Your task to perform on an android device: Open internet settings Image 0: 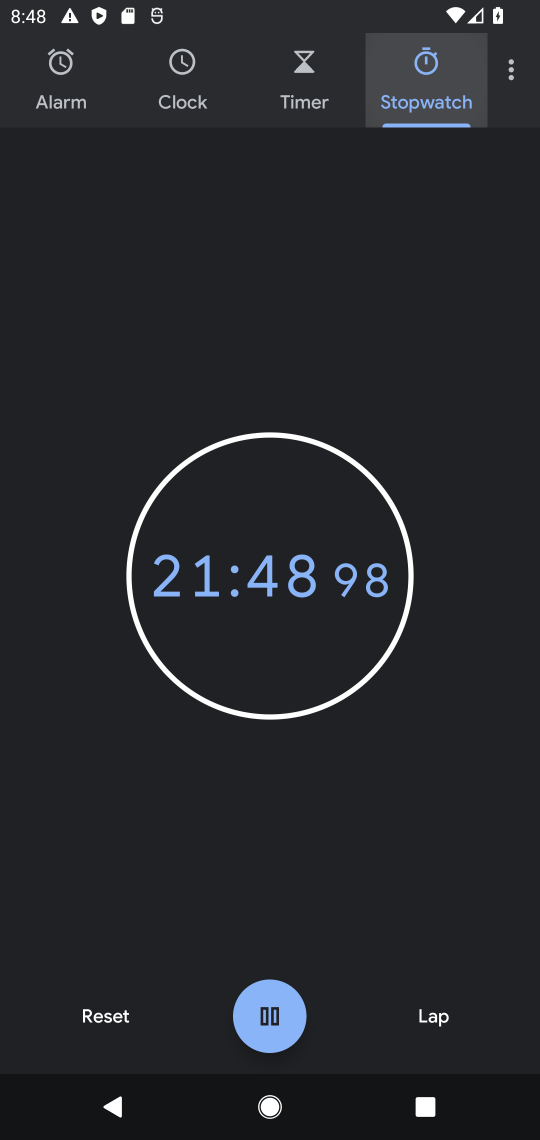
Step 0: press home button
Your task to perform on an android device: Open internet settings Image 1: 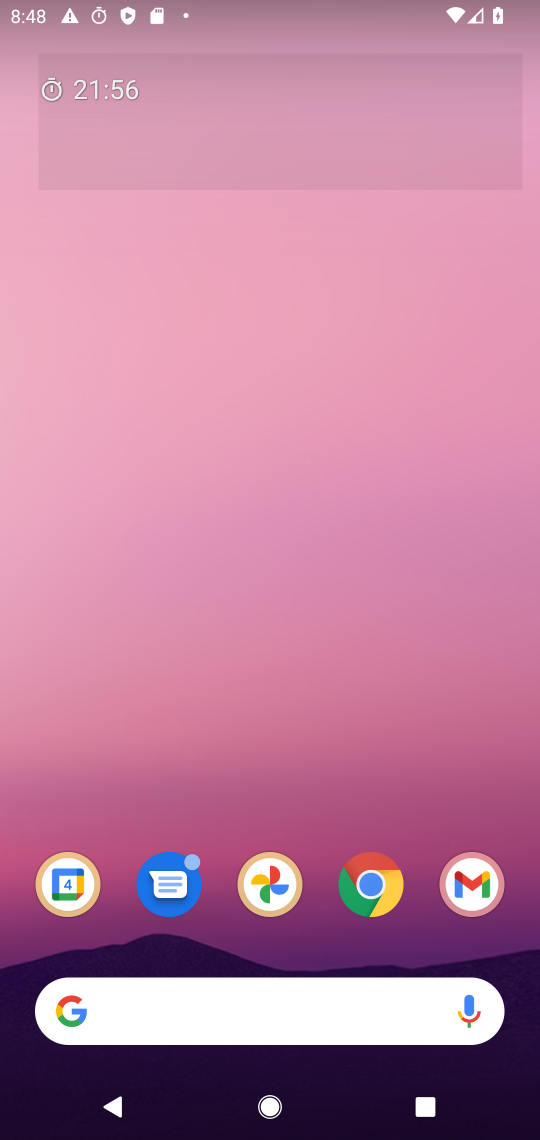
Step 1: drag from (278, 903) to (386, 217)
Your task to perform on an android device: Open internet settings Image 2: 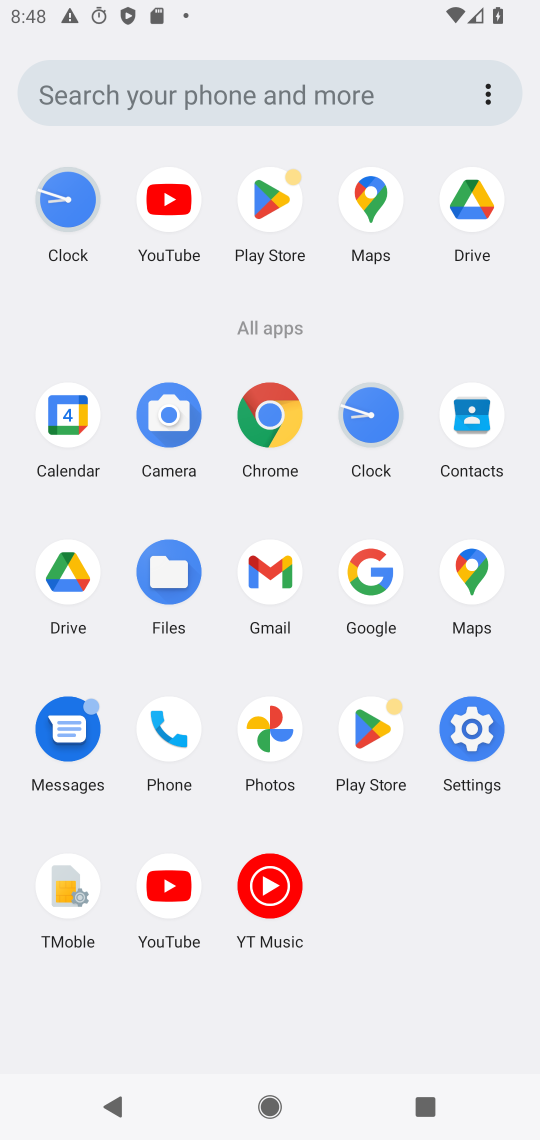
Step 2: click (480, 730)
Your task to perform on an android device: Open internet settings Image 3: 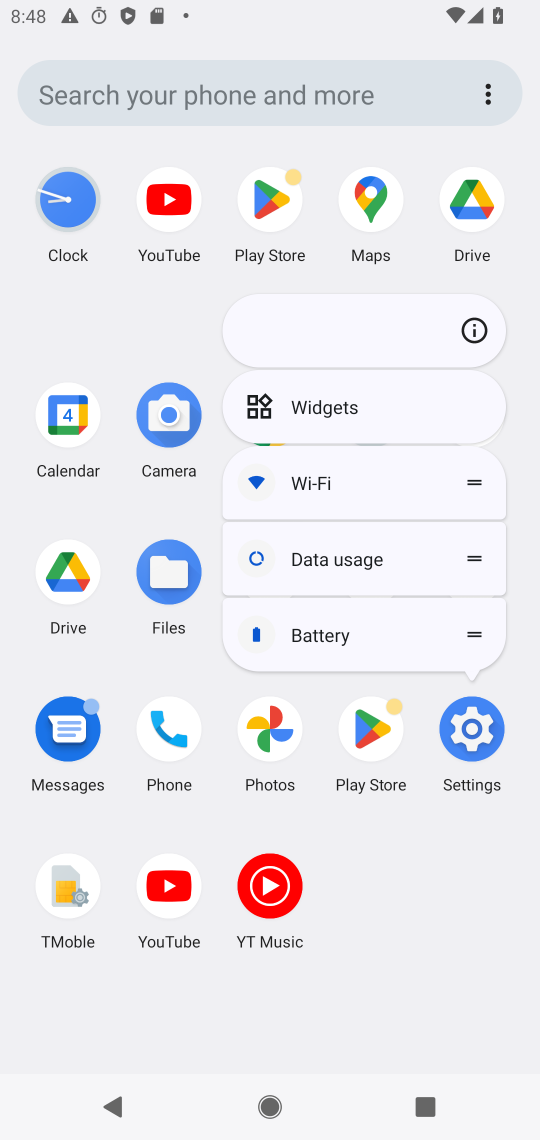
Step 3: click (480, 730)
Your task to perform on an android device: Open internet settings Image 4: 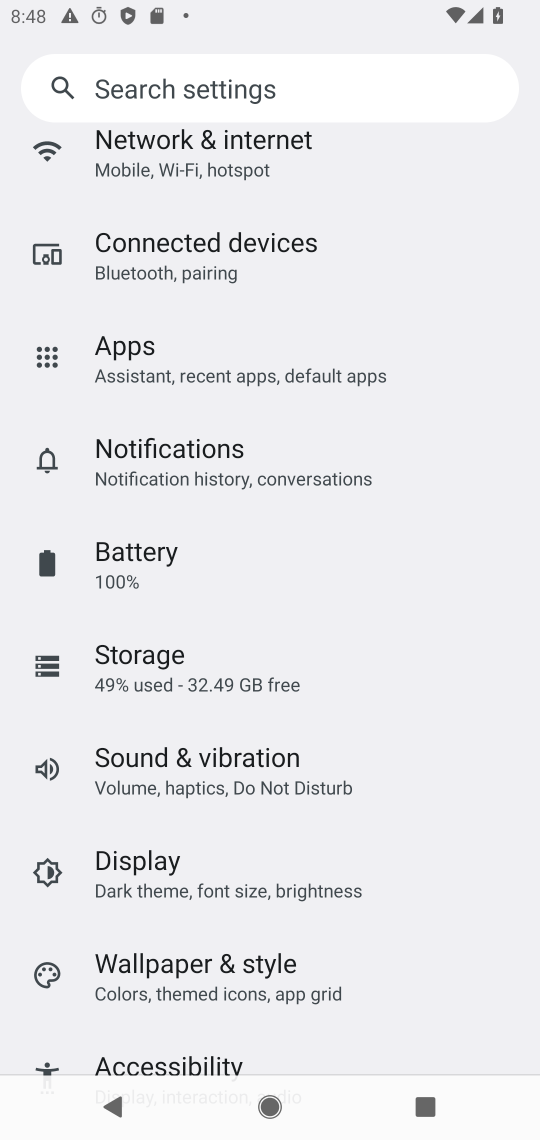
Step 4: click (162, 161)
Your task to perform on an android device: Open internet settings Image 5: 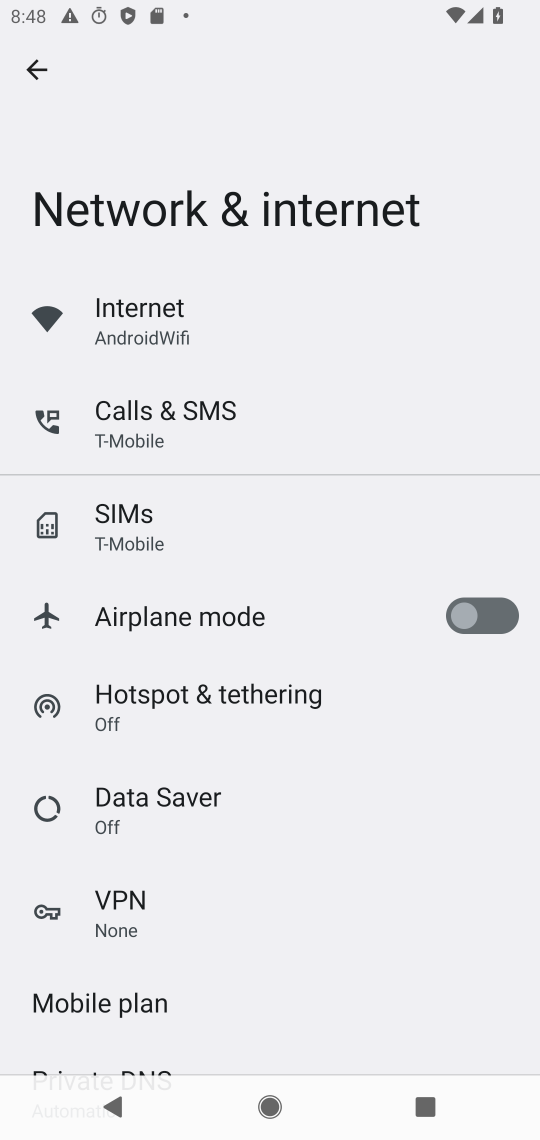
Step 5: click (155, 321)
Your task to perform on an android device: Open internet settings Image 6: 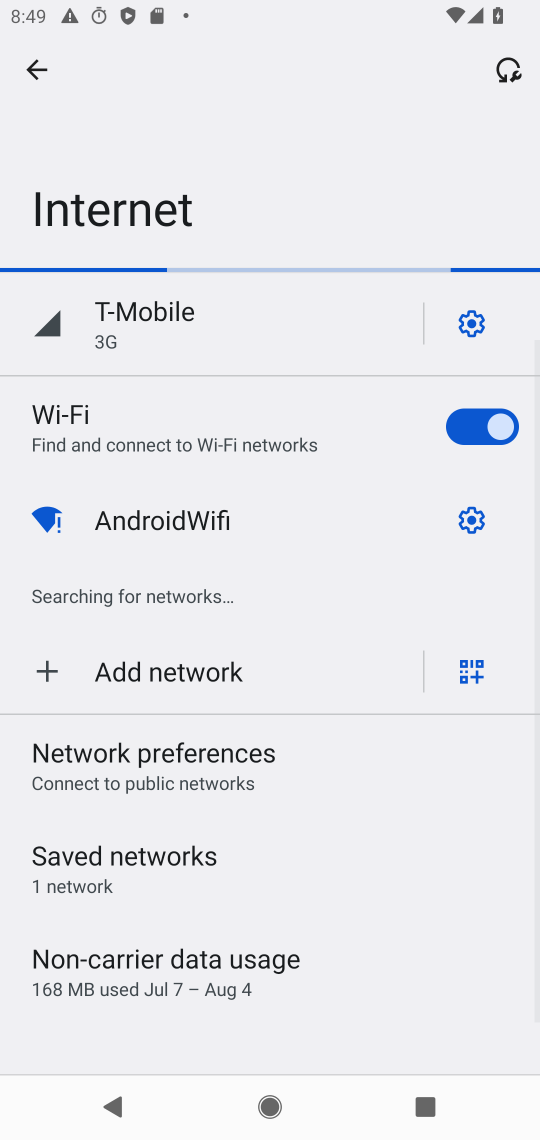
Step 6: task complete